Your task to perform on an android device: Open location settings Image 0: 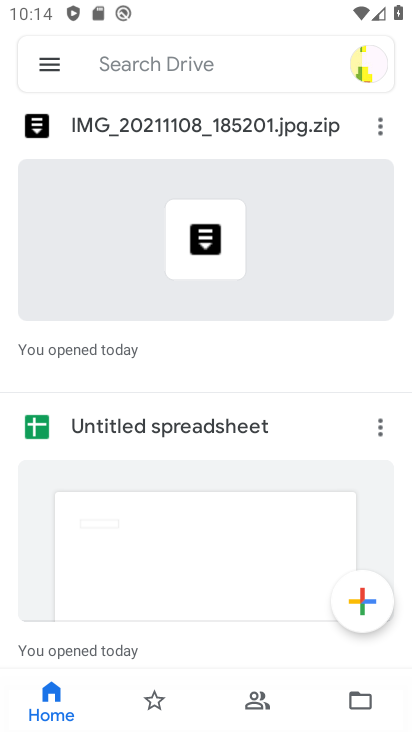
Step 0: press home button
Your task to perform on an android device: Open location settings Image 1: 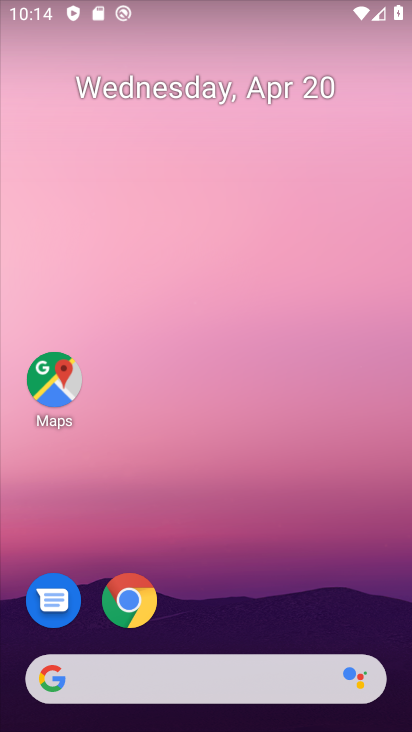
Step 1: drag from (295, 603) to (305, 275)
Your task to perform on an android device: Open location settings Image 2: 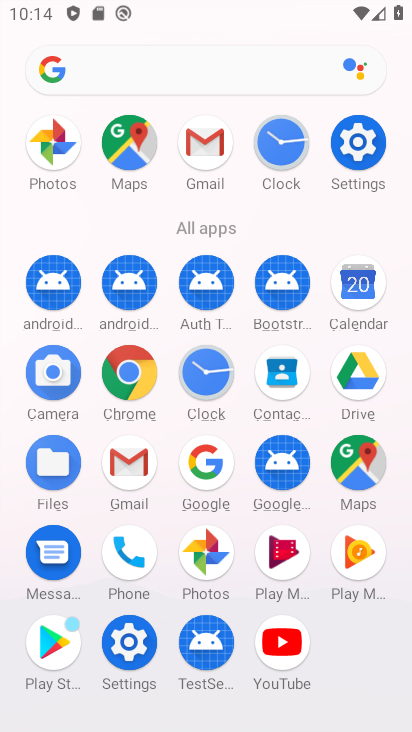
Step 2: click (121, 647)
Your task to perform on an android device: Open location settings Image 3: 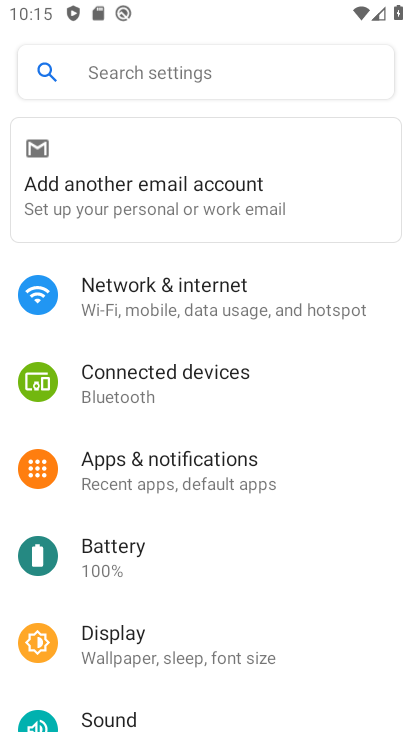
Step 3: drag from (211, 623) to (240, 207)
Your task to perform on an android device: Open location settings Image 4: 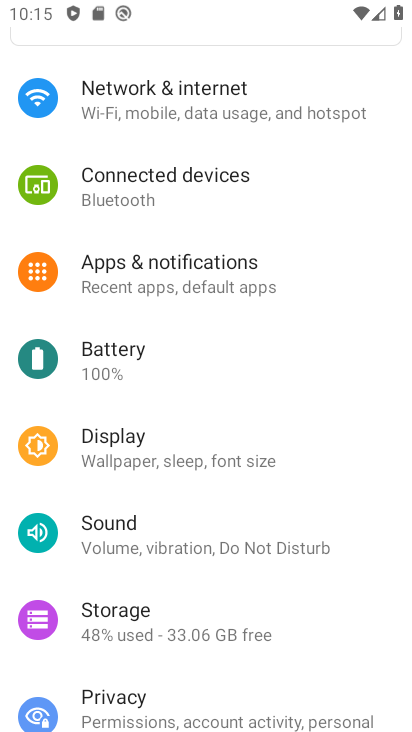
Step 4: drag from (196, 605) to (249, 263)
Your task to perform on an android device: Open location settings Image 5: 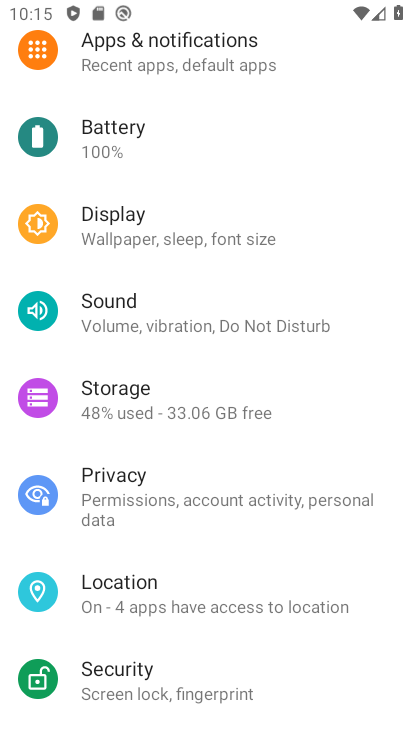
Step 5: click (180, 592)
Your task to perform on an android device: Open location settings Image 6: 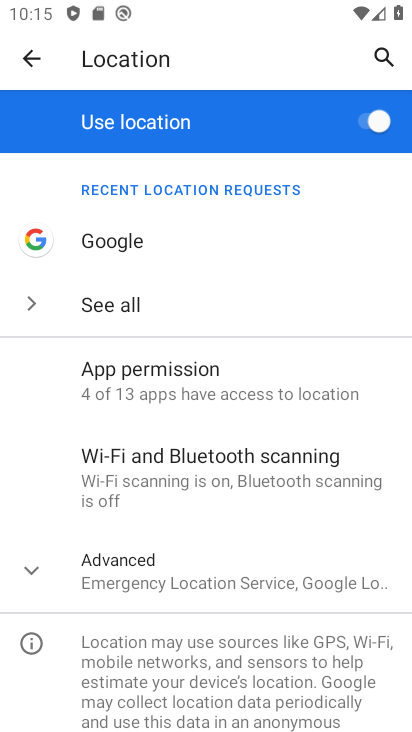
Step 6: task complete